Your task to perform on an android device: delete browsing data in the chrome app Image 0: 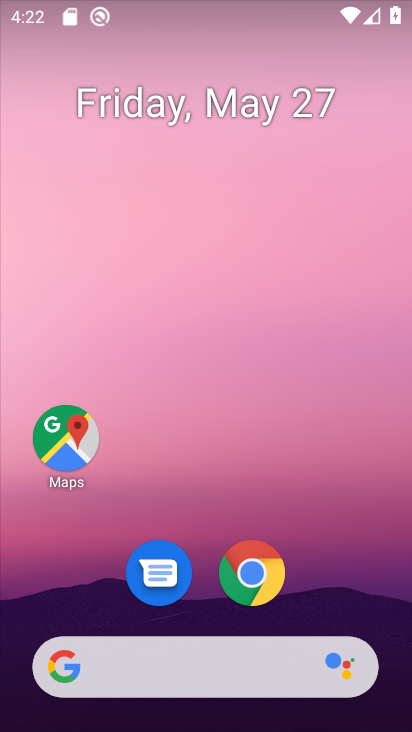
Step 0: click (259, 554)
Your task to perform on an android device: delete browsing data in the chrome app Image 1: 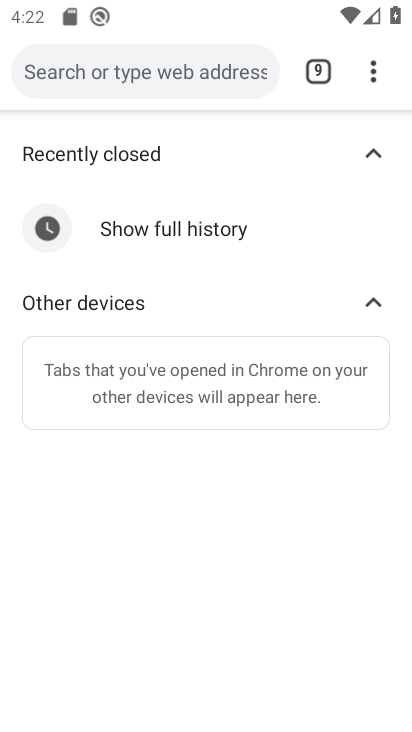
Step 1: click (375, 70)
Your task to perform on an android device: delete browsing data in the chrome app Image 2: 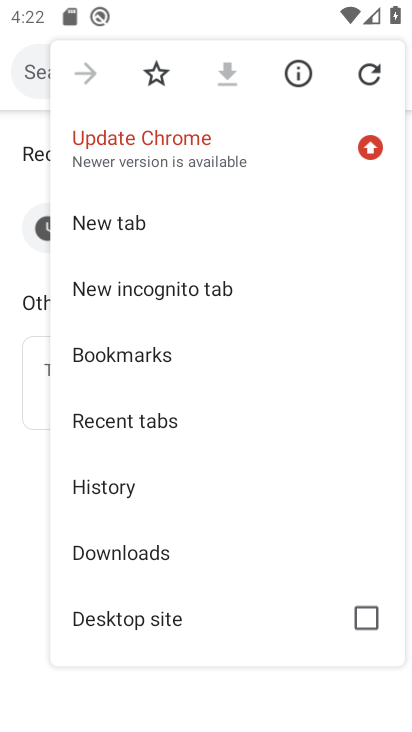
Step 2: click (123, 487)
Your task to perform on an android device: delete browsing data in the chrome app Image 3: 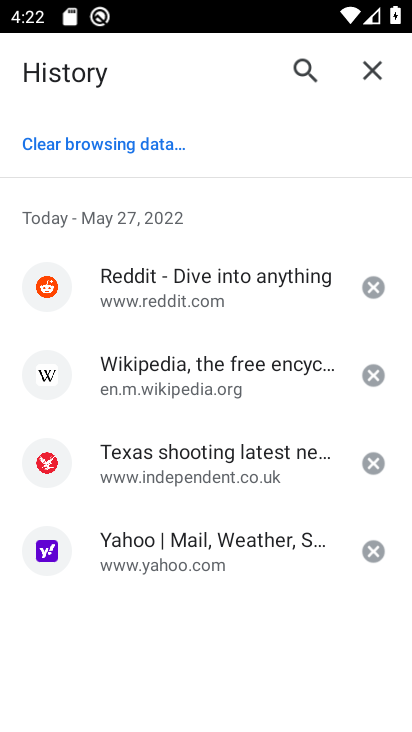
Step 3: click (147, 144)
Your task to perform on an android device: delete browsing data in the chrome app Image 4: 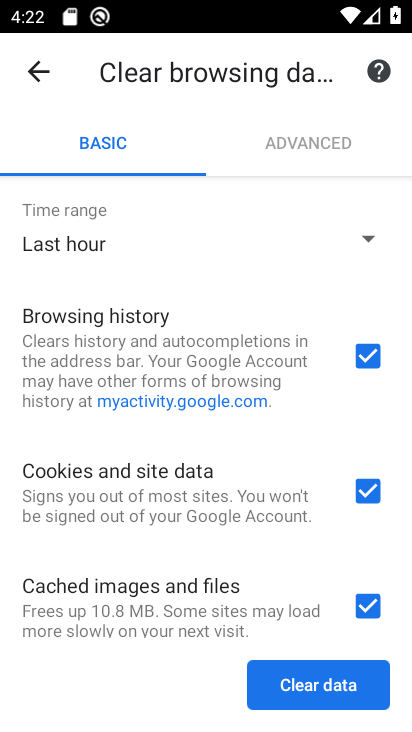
Step 4: click (282, 673)
Your task to perform on an android device: delete browsing data in the chrome app Image 5: 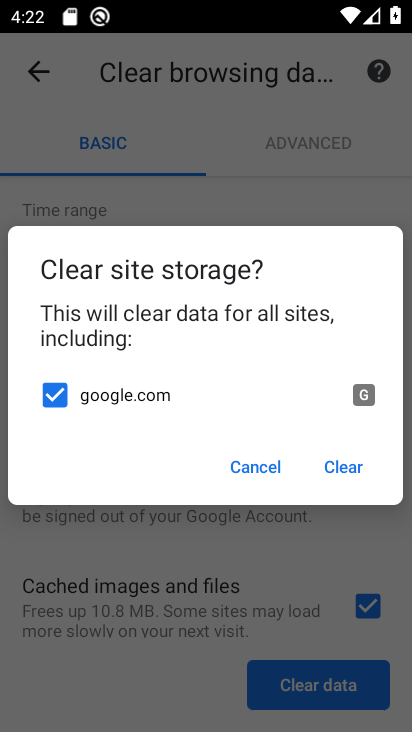
Step 5: click (349, 469)
Your task to perform on an android device: delete browsing data in the chrome app Image 6: 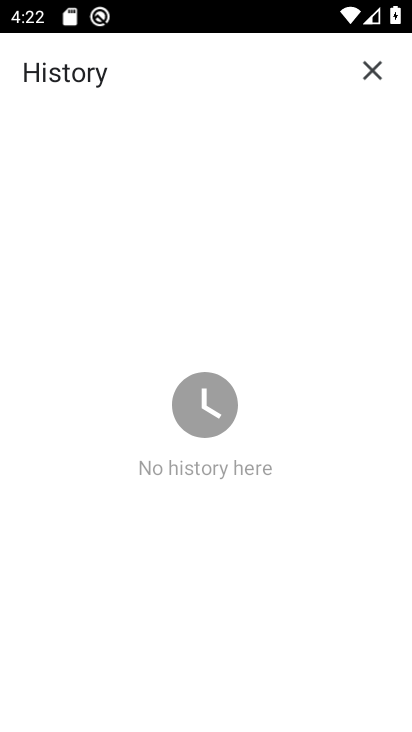
Step 6: task complete